Your task to perform on an android device: Open privacy settings Image 0: 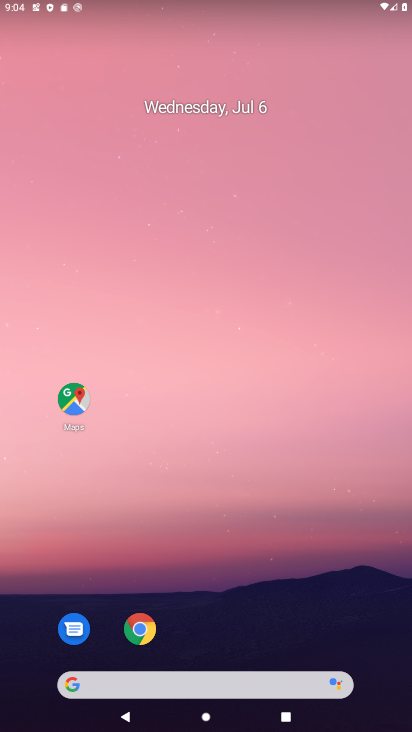
Step 0: drag from (236, 637) to (263, 97)
Your task to perform on an android device: Open privacy settings Image 1: 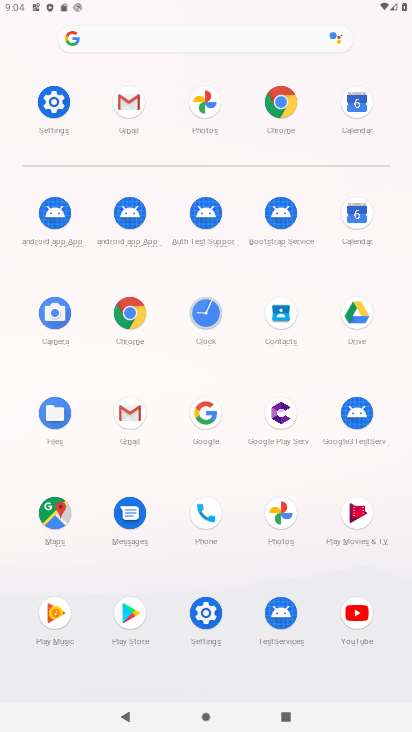
Step 1: click (282, 102)
Your task to perform on an android device: Open privacy settings Image 2: 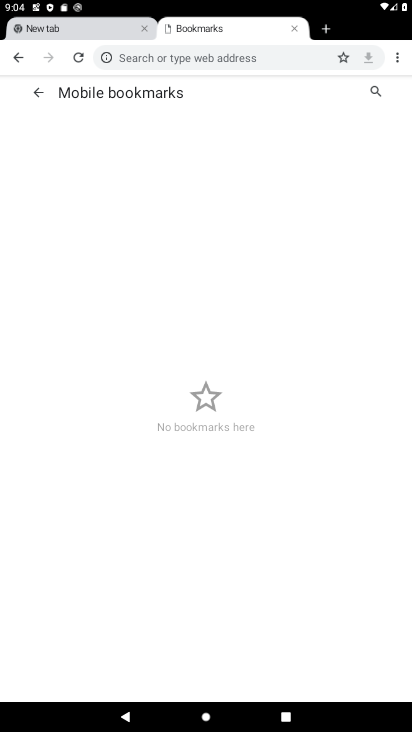
Step 2: click (395, 58)
Your task to perform on an android device: Open privacy settings Image 3: 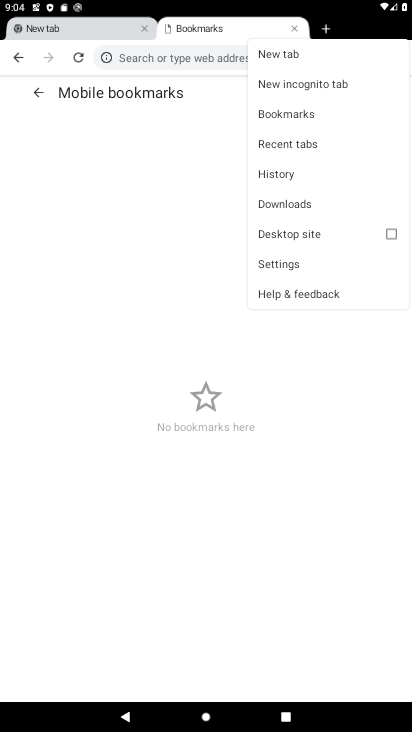
Step 3: click (287, 256)
Your task to perform on an android device: Open privacy settings Image 4: 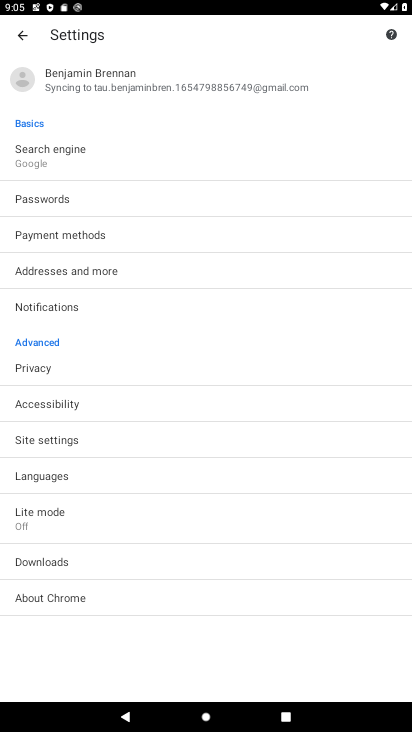
Step 4: click (54, 371)
Your task to perform on an android device: Open privacy settings Image 5: 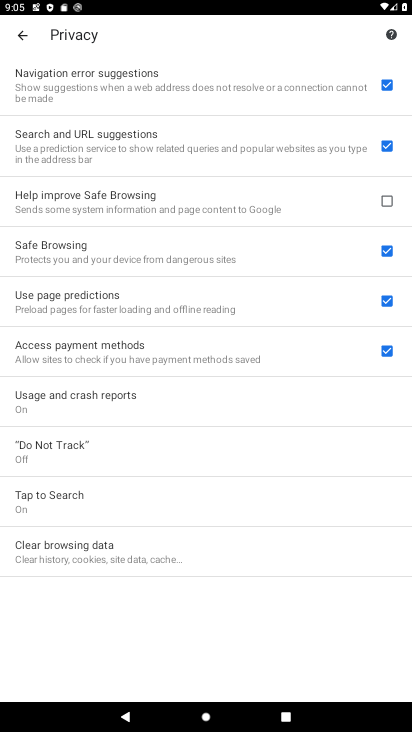
Step 5: task complete